Your task to perform on an android device: Open Google Chrome Image 0: 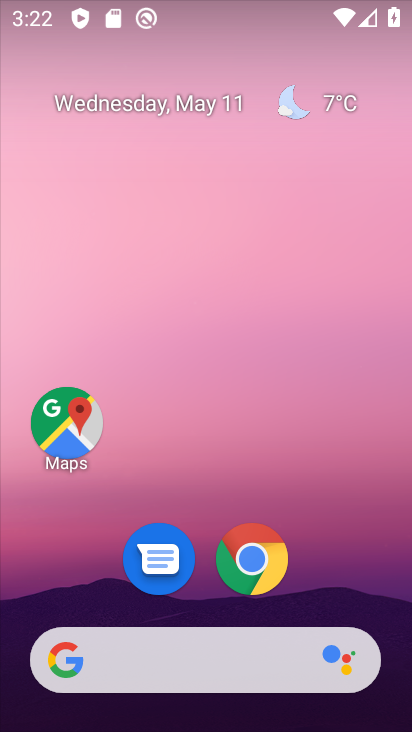
Step 0: click (246, 558)
Your task to perform on an android device: Open Google Chrome Image 1: 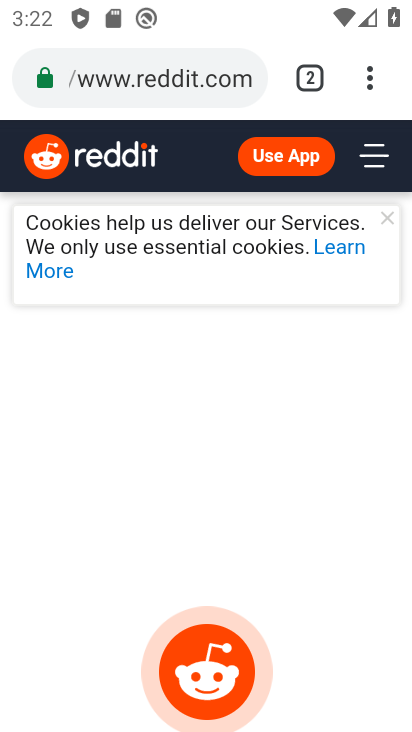
Step 1: task complete